Your task to perform on an android device: Open battery settings Image 0: 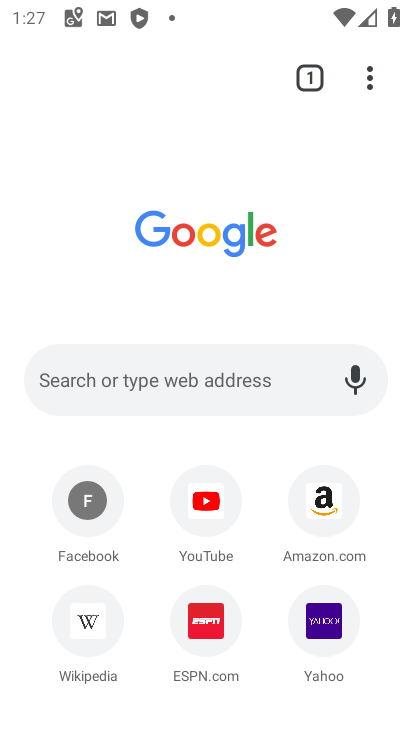
Step 0: press home button
Your task to perform on an android device: Open battery settings Image 1: 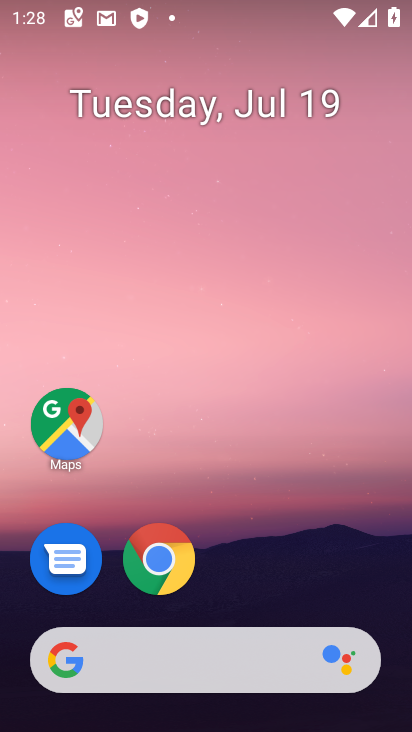
Step 1: drag from (241, 637) to (229, 103)
Your task to perform on an android device: Open battery settings Image 2: 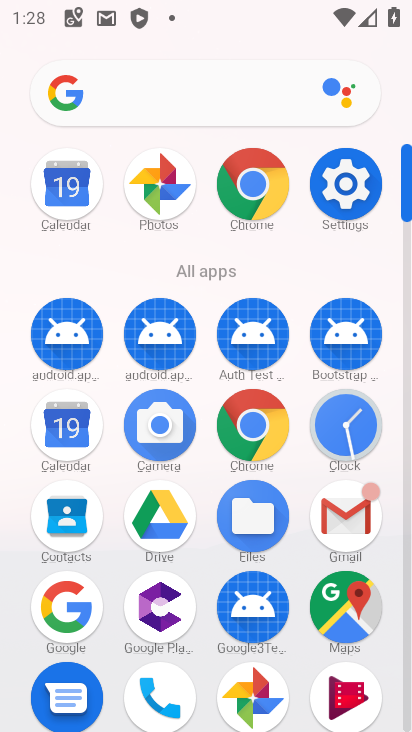
Step 2: click (343, 191)
Your task to perform on an android device: Open battery settings Image 3: 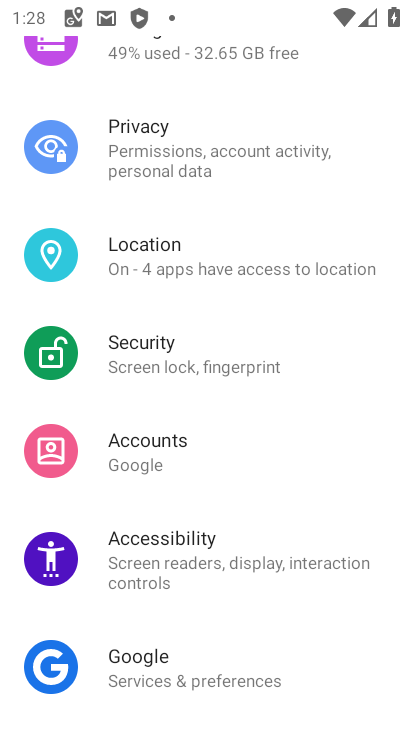
Step 3: drag from (187, 668) to (175, 232)
Your task to perform on an android device: Open battery settings Image 4: 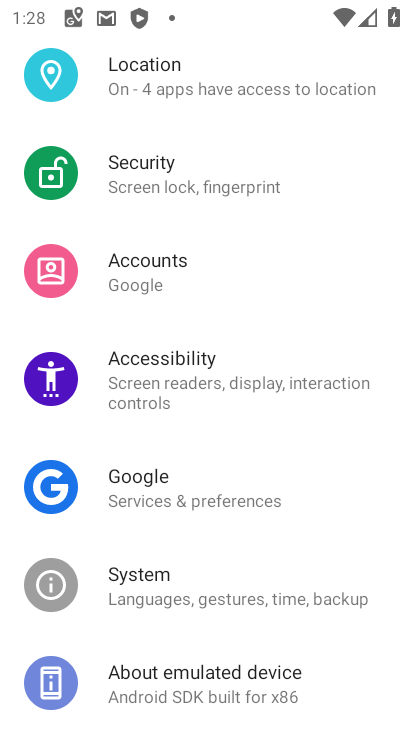
Step 4: drag from (176, 171) to (195, 618)
Your task to perform on an android device: Open battery settings Image 5: 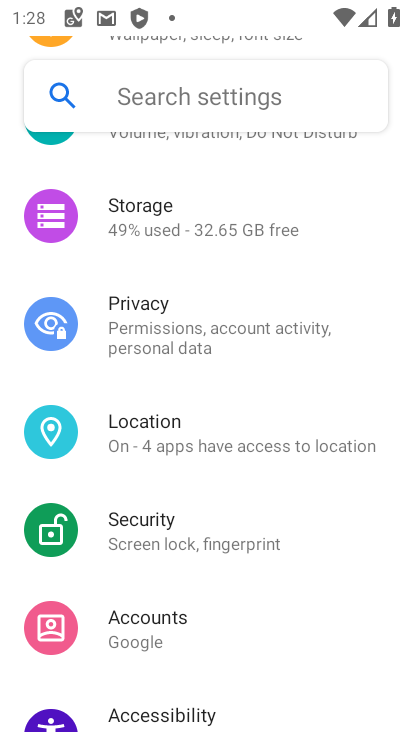
Step 5: drag from (140, 163) to (201, 553)
Your task to perform on an android device: Open battery settings Image 6: 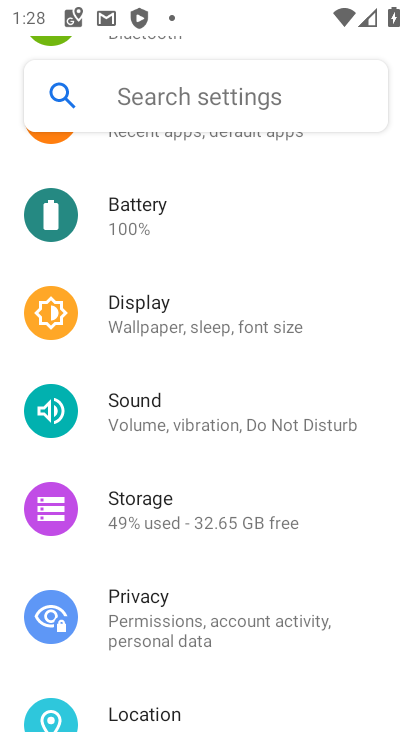
Step 6: click (128, 209)
Your task to perform on an android device: Open battery settings Image 7: 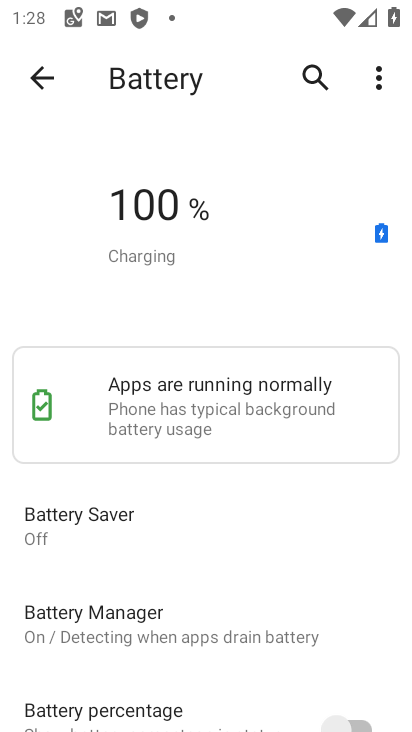
Step 7: task complete